Your task to perform on an android device: Open settings Image 0: 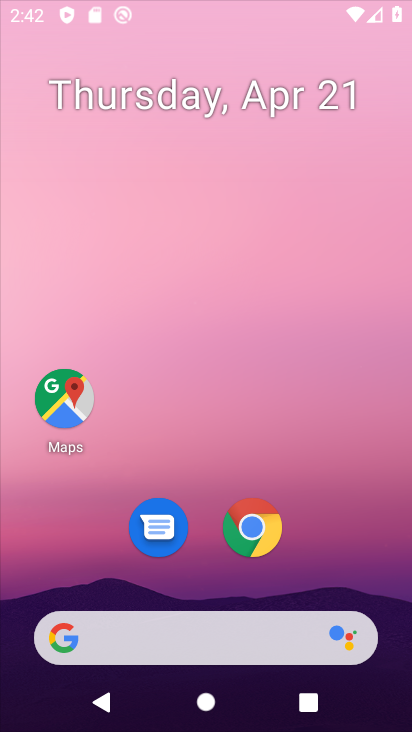
Step 0: click (253, 532)
Your task to perform on an android device: Open settings Image 1: 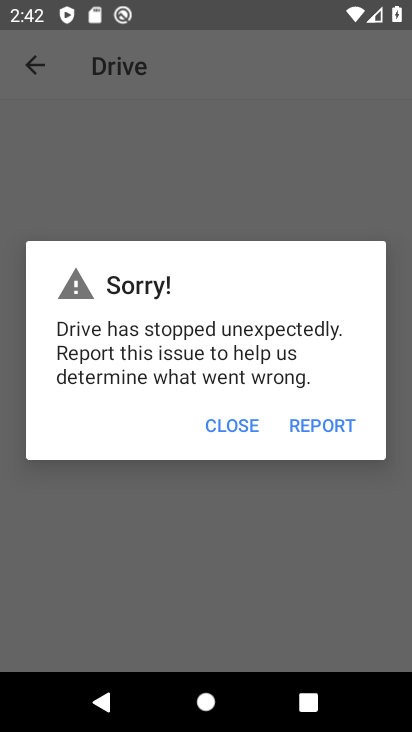
Step 1: press home button
Your task to perform on an android device: Open settings Image 2: 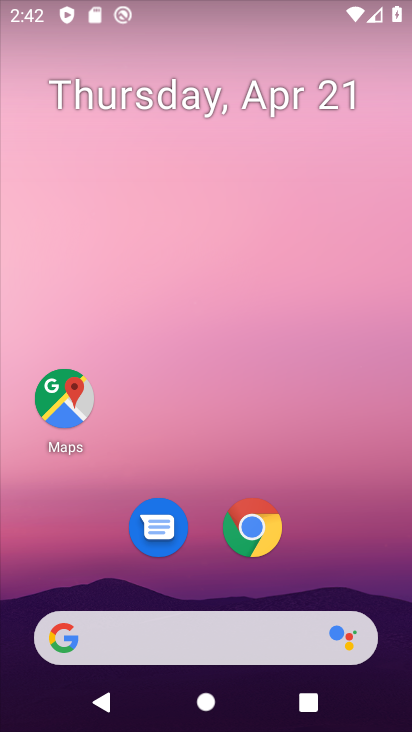
Step 2: drag from (355, 572) to (308, 138)
Your task to perform on an android device: Open settings Image 3: 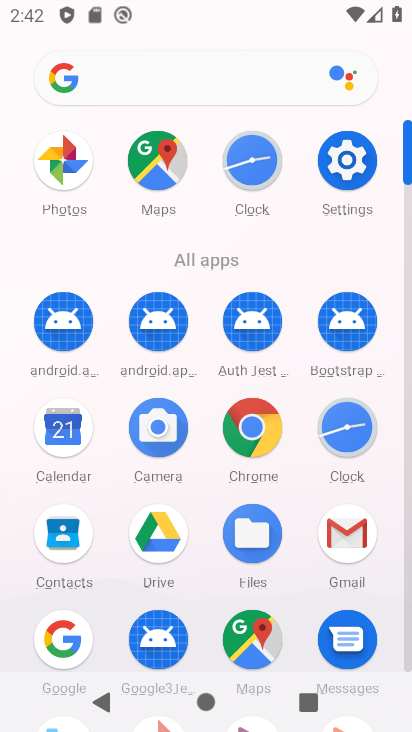
Step 3: click (337, 151)
Your task to perform on an android device: Open settings Image 4: 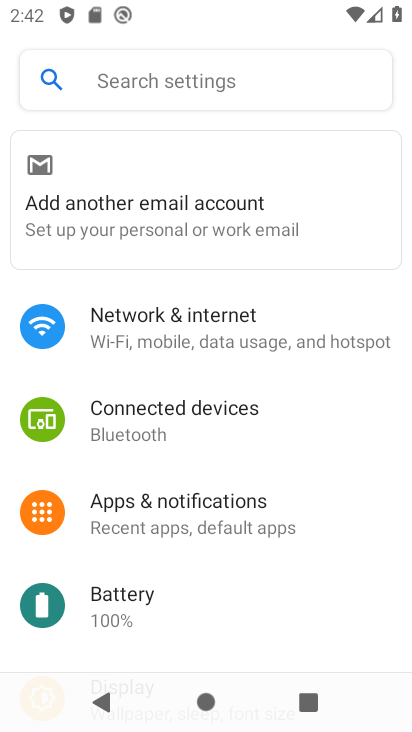
Step 4: task complete